Your task to perform on an android device: open wifi settings Image 0: 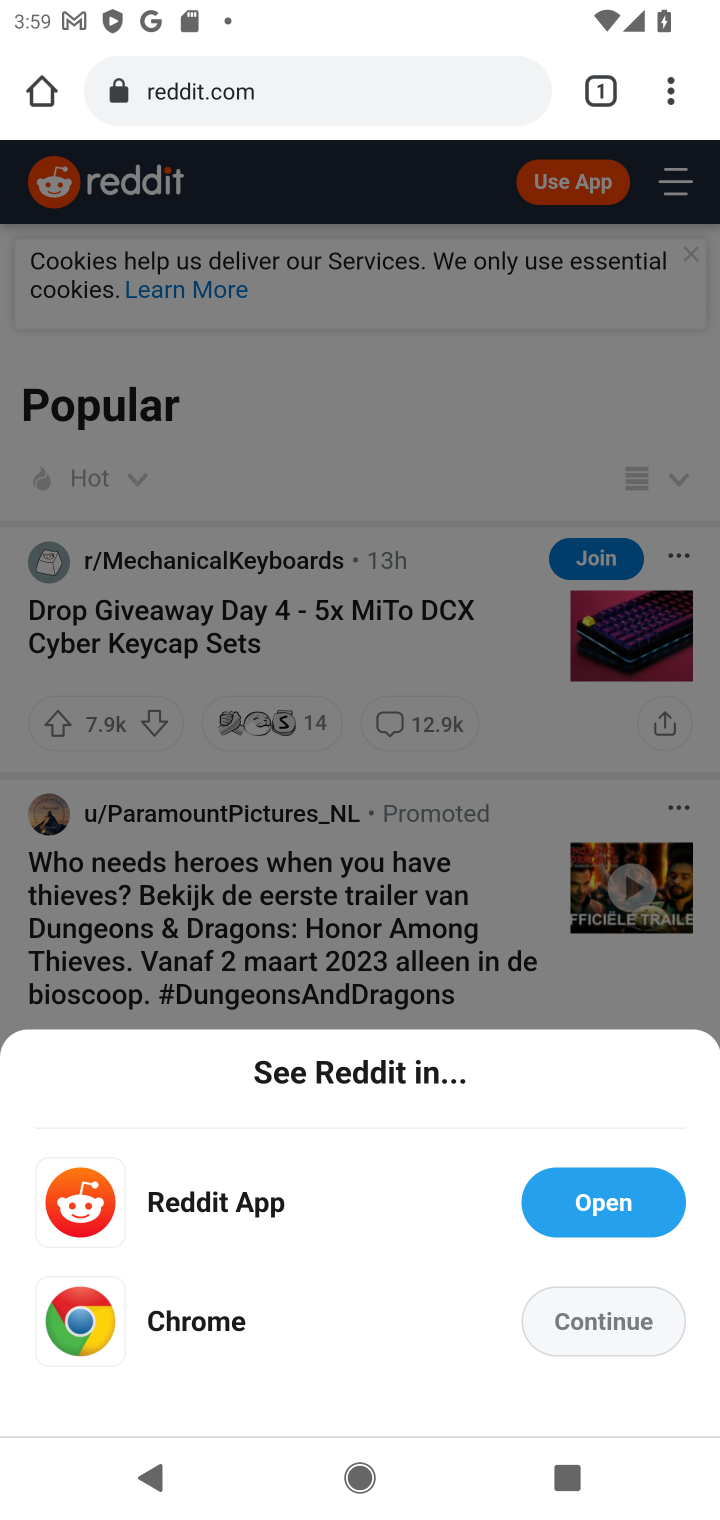
Step 0: press home button
Your task to perform on an android device: open wifi settings Image 1: 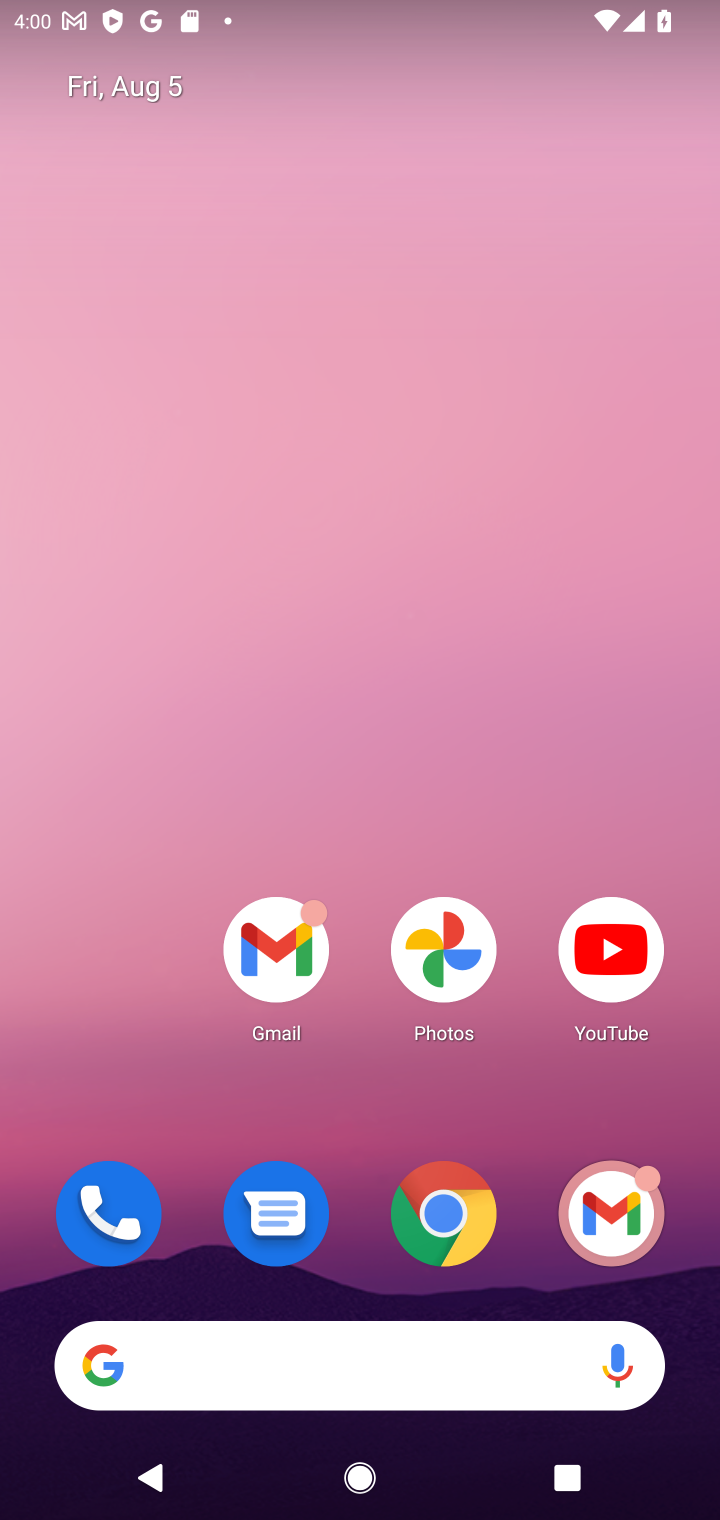
Step 1: drag from (338, 1281) to (236, 129)
Your task to perform on an android device: open wifi settings Image 2: 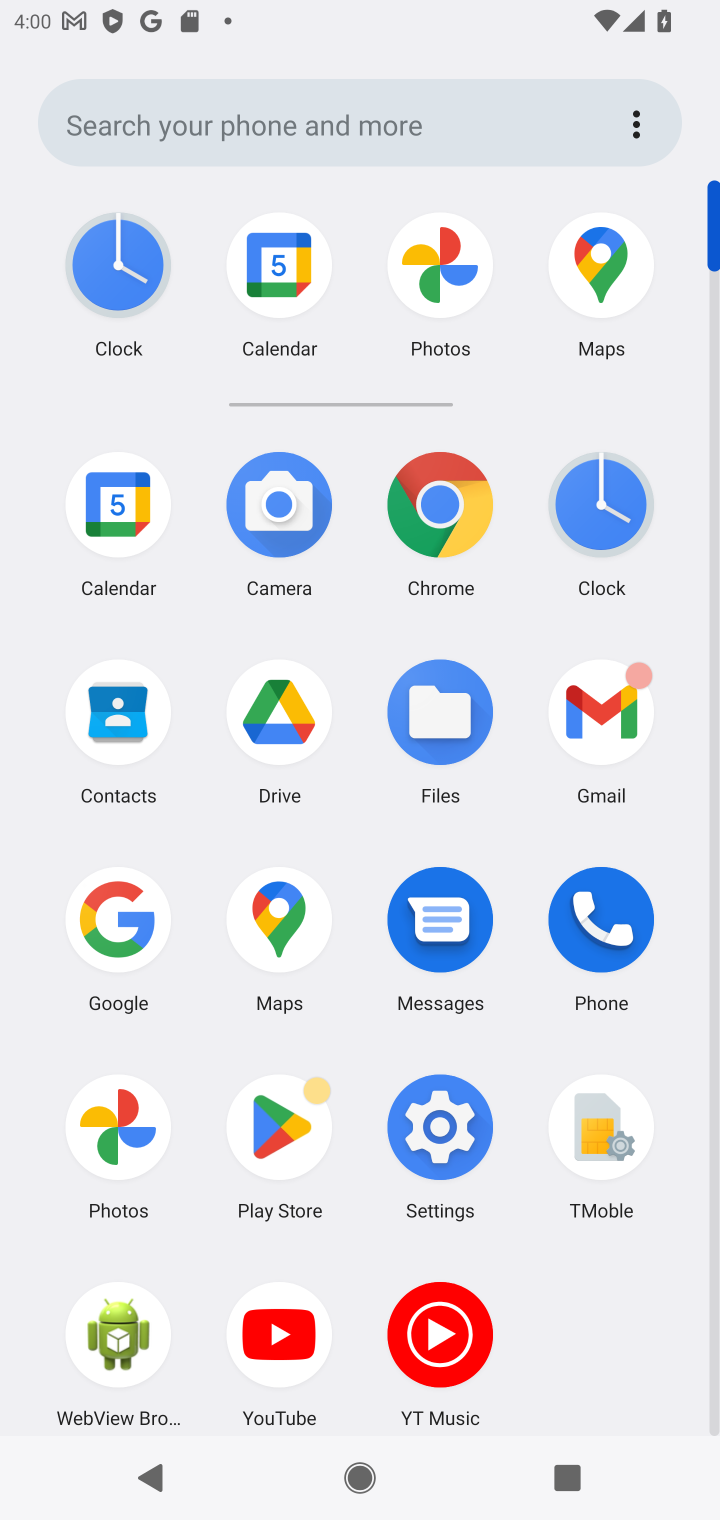
Step 2: click (432, 1161)
Your task to perform on an android device: open wifi settings Image 3: 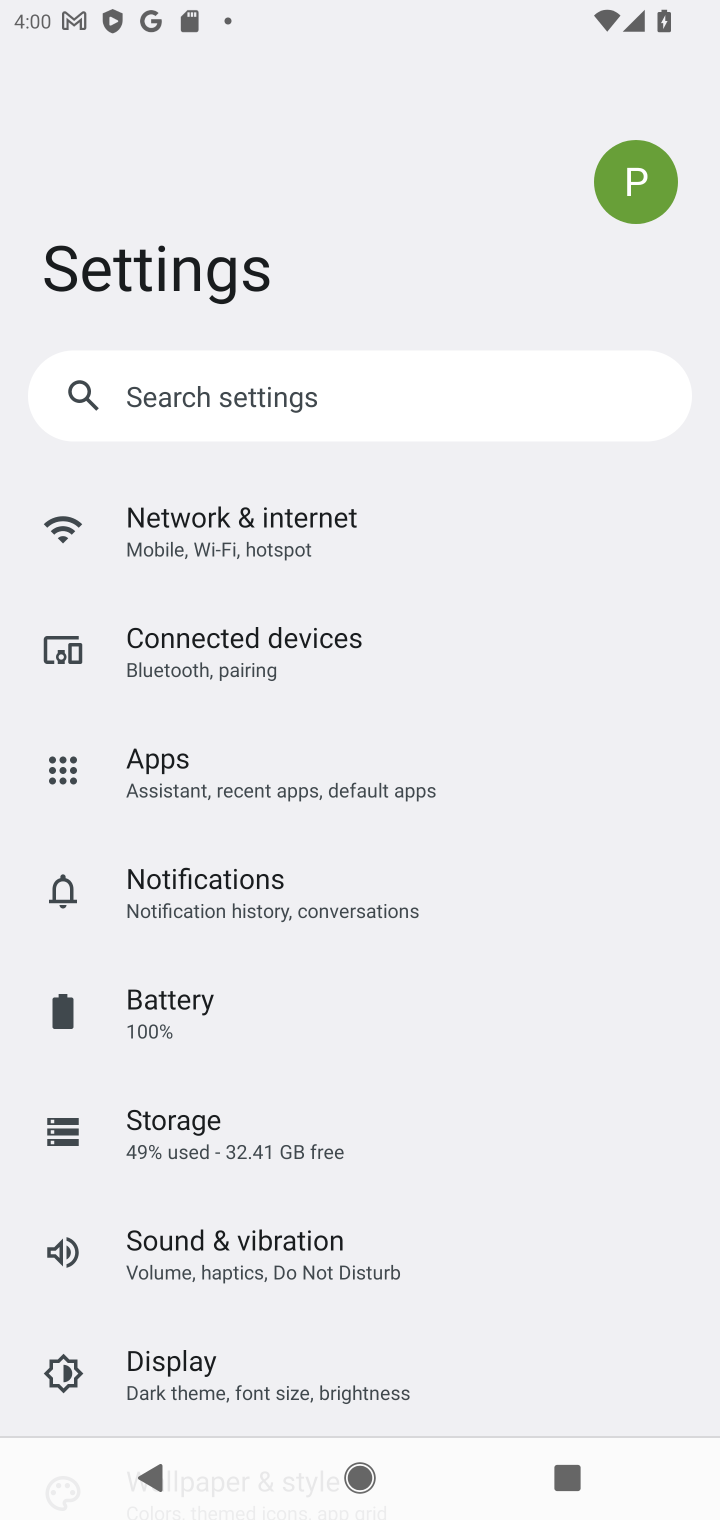
Step 3: click (408, 548)
Your task to perform on an android device: open wifi settings Image 4: 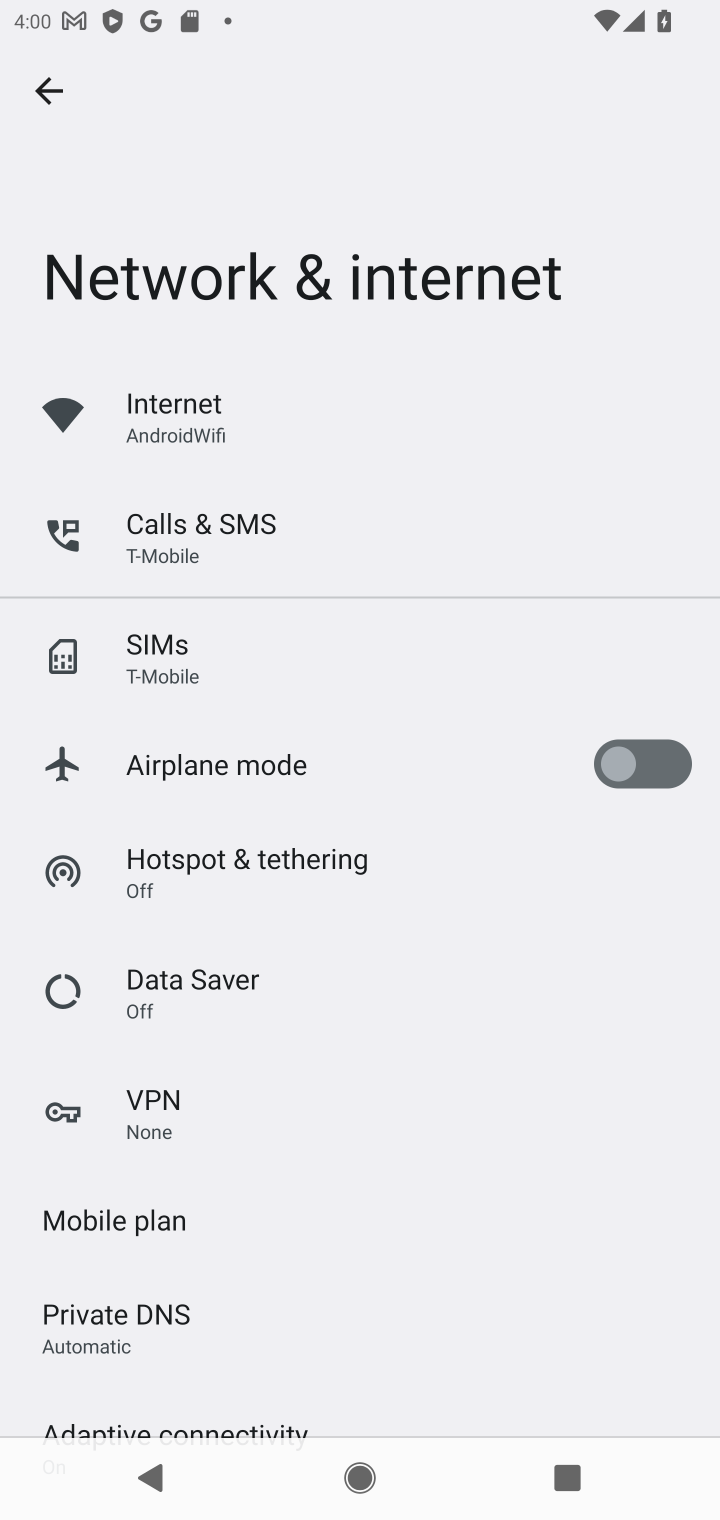
Step 4: task complete